Your task to perform on an android device: turn vacation reply on in the gmail app Image 0: 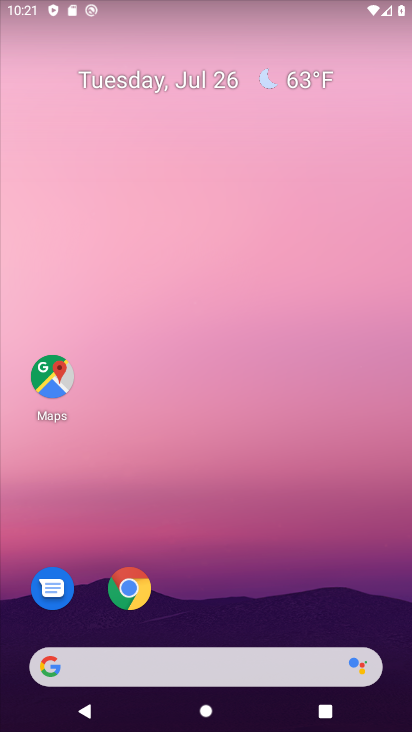
Step 0: click (180, 176)
Your task to perform on an android device: turn vacation reply on in the gmail app Image 1: 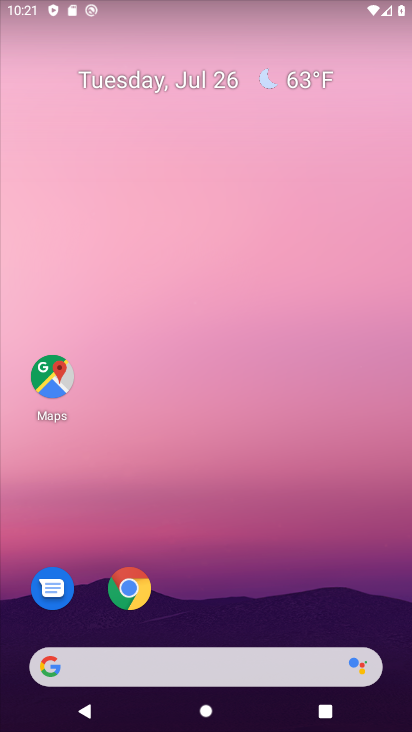
Step 1: drag from (269, 619) to (226, 93)
Your task to perform on an android device: turn vacation reply on in the gmail app Image 2: 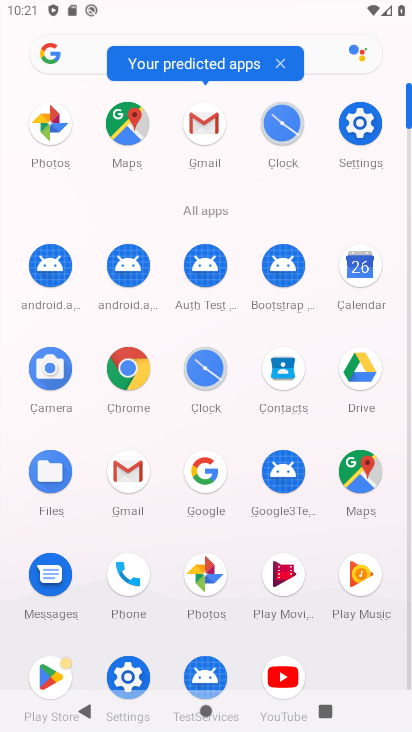
Step 2: click (203, 118)
Your task to perform on an android device: turn vacation reply on in the gmail app Image 3: 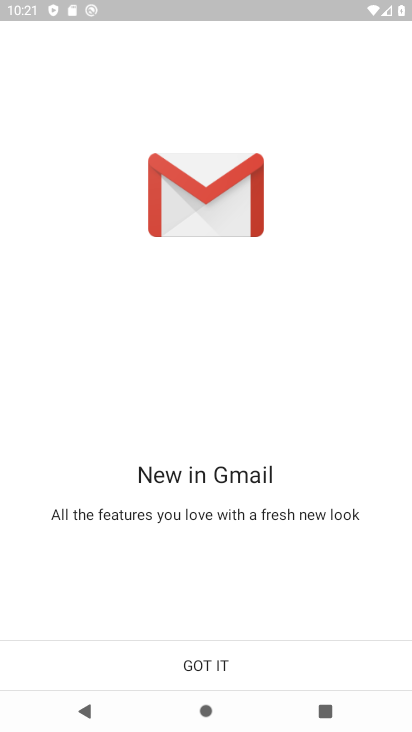
Step 3: click (252, 650)
Your task to perform on an android device: turn vacation reply on in the gmail app Image 4: 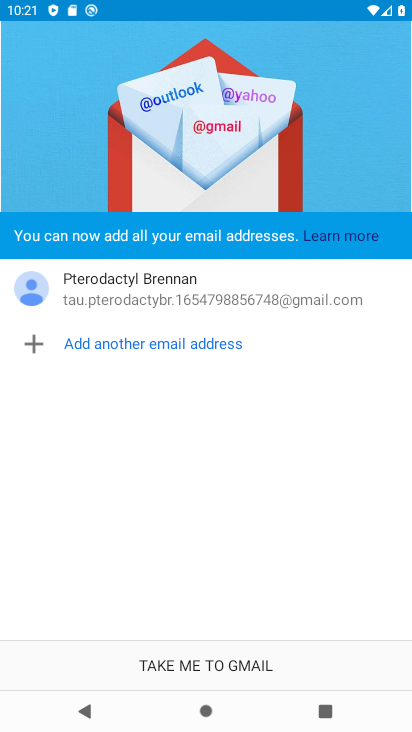
Step 4: click (273, 658)
Your task to perform on an android device: turn vacation reply on in the gmail app Image 5: 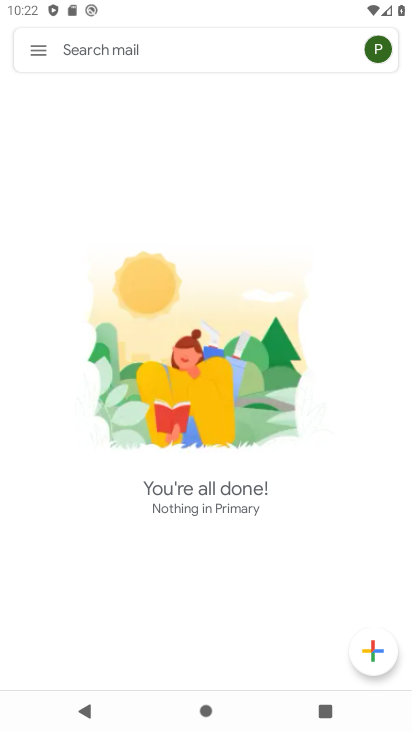
Step 5: click (36, 43)
Your task to perform on an android device: turn vacation reply on in the gmail app Image 6: 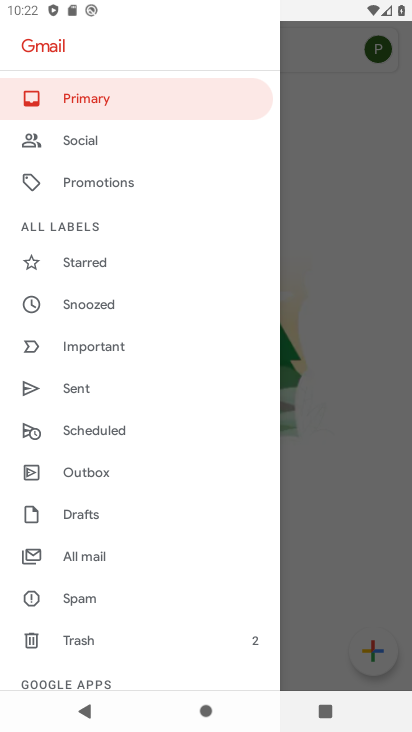
Step 6: drag from (143, 648) to (104, 283)
Your task to perform on an android device: turn vacation reply on in the gmail app Image 7: 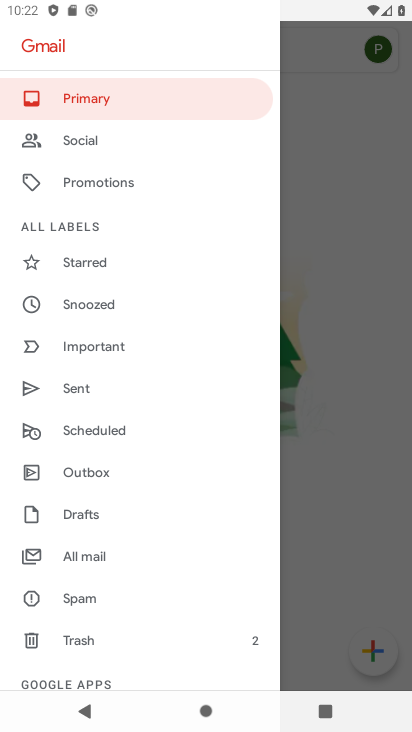
Step 7: drag from (111, 643) to (82, 360)
Your task to perform on an android device: turn vacation reply on in the gmail app Image 8: 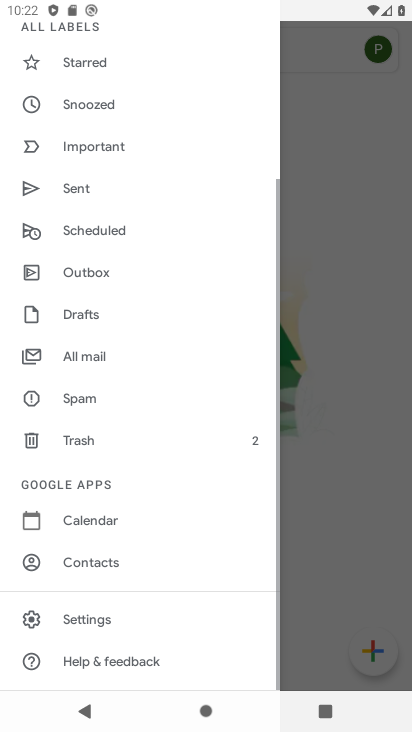
Step 8: click (114, 618)
Your task to perform on an android device: turn vacation reply on in the gmail app Image 9: 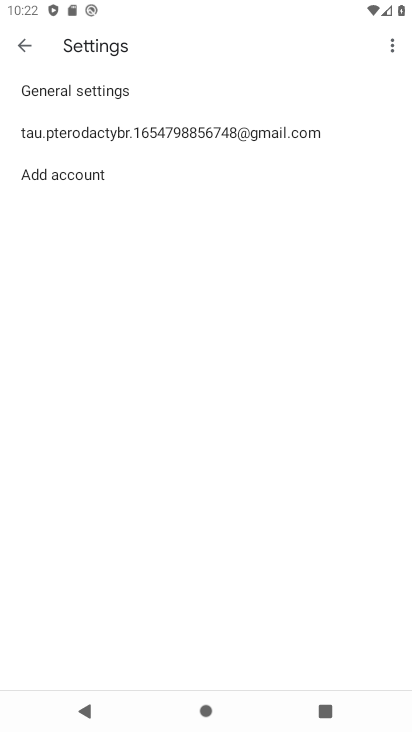
Step 9: click (154, 130)
Your task to perform on an android device: turn vacation reply on in the gmail app Image 10: 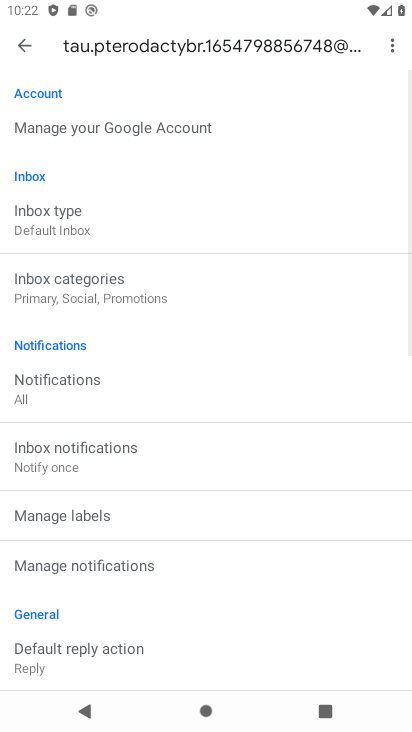
Step 10: drag from (132, 521) to (73, 99)
Your task to perform on an android device: turn vacation reply on in the gmail app Image 11: 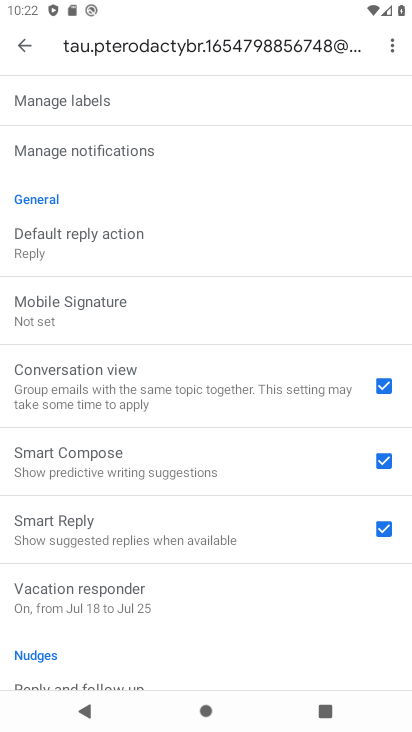
Step 11: click (148, 577)
Your task to perform on an android device: turn vacation reply on in the gmail app Image 12: 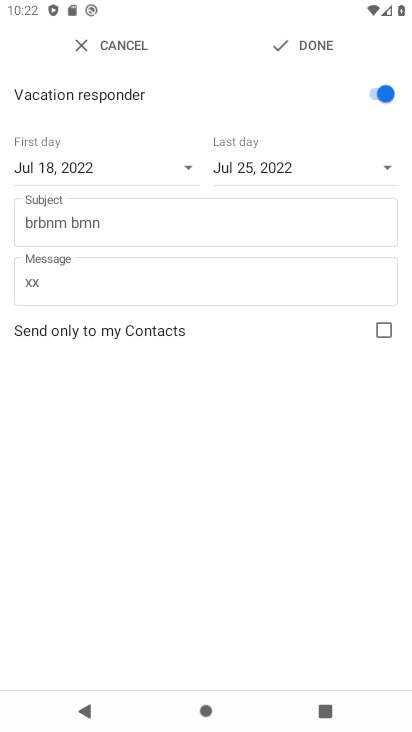
Step 12: click (288, 53)
Your task to perform on an android device: turn vacation reply on in the gmail app Image 13: 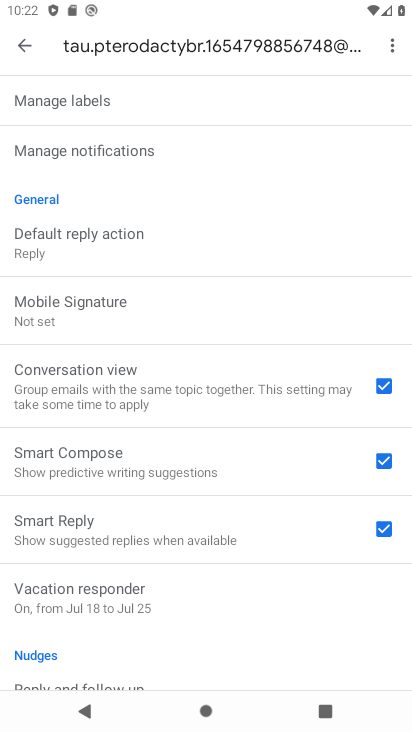
Step 13: task complete